Your task to perform on an android device: turn off smart reply in the gmail app Image 0: 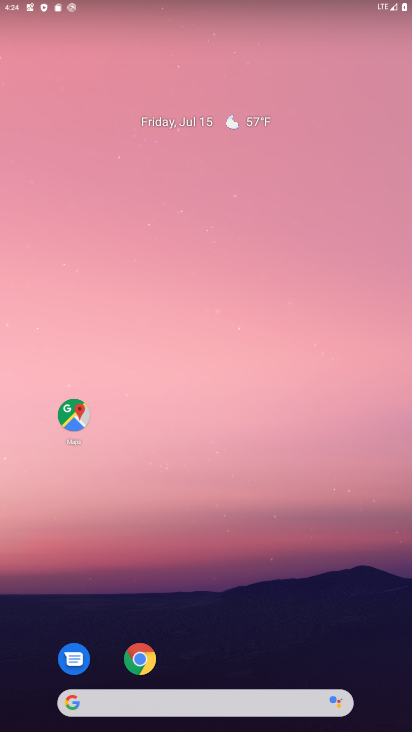
Step 0: drag from (330, 665) to (202, 161)
Your task to perform on an android device: turn off smart reply in the gmail app Image 1: 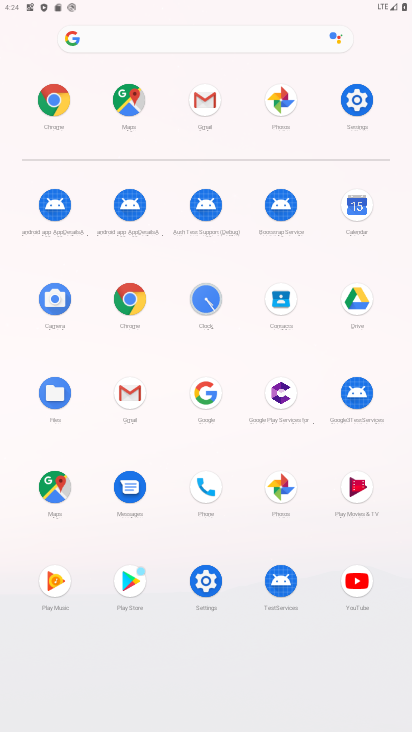
Step 1: click (206, 90)
Your task to perform on an android device: turn off smart reply in the gmail app Image 2: 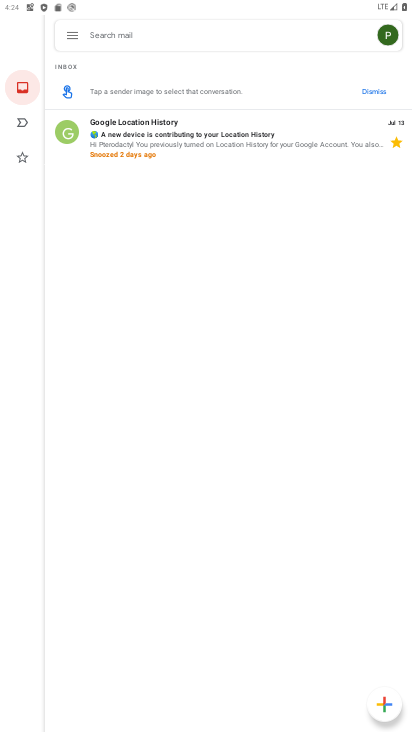
Step 2: click (70, 36)
Your task to perform on an android device: turn off smart reply in the gmail app Image 3: 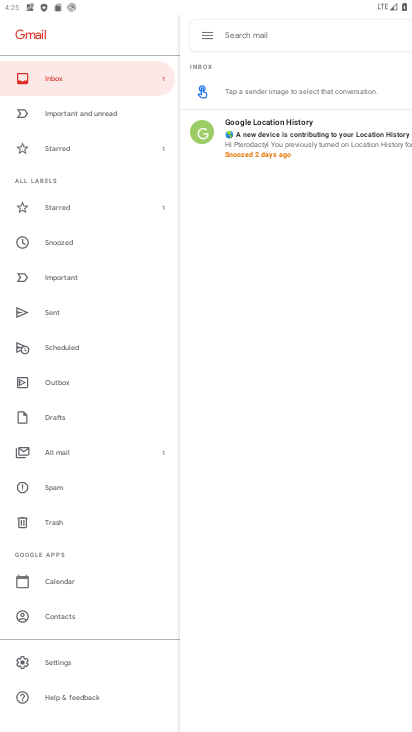
Step 3: click (71, 657)
Your task to perform on an android device: turn off smart reply in the gmail app Image 4: 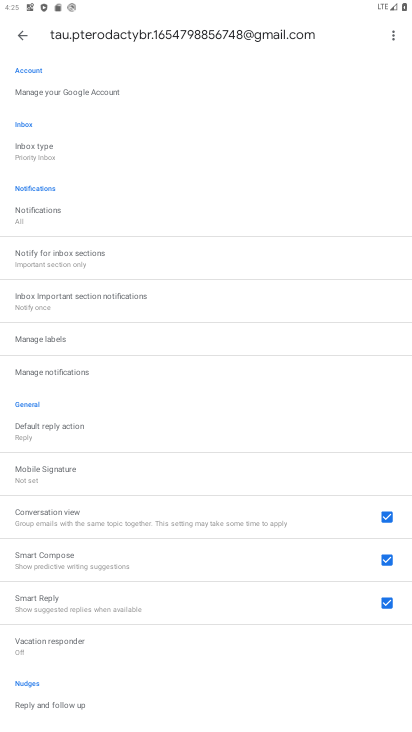
Step 4: drag from (219, 673) to (157, 352)
Your task to perform on an android device: turn off smart reply in the gmail app Image 5: 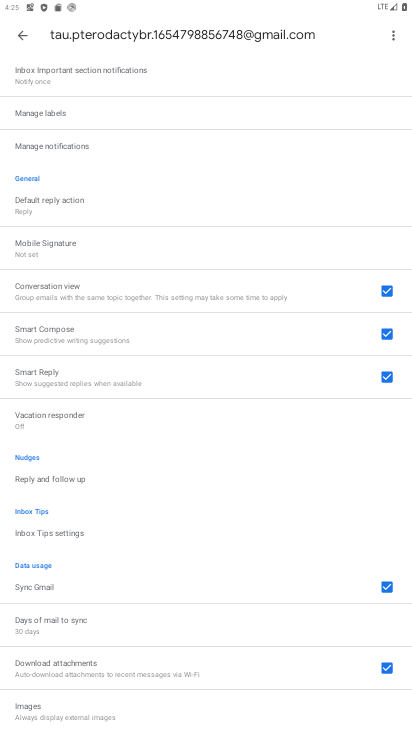
Step 5: click (381, 369)
Your task to perform on an android device: turn off smart reply in the gmail app Image 6: 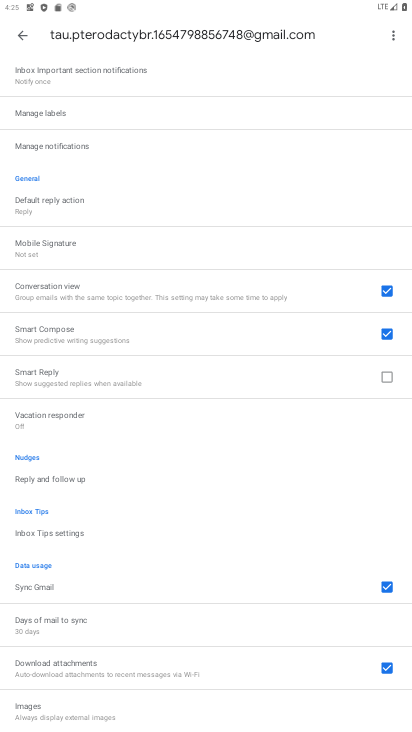
Step 6: task complete